Your task to perform on an android device: check google app version Image 0: 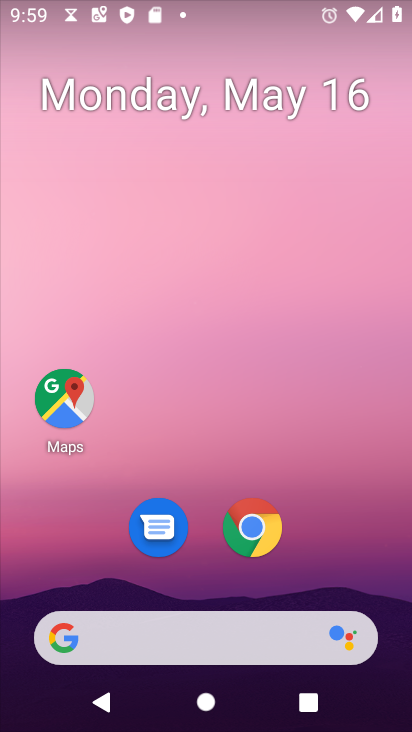
Step 0: drag from (378, 607) to (320, 34)
Your task to perform on an android device: check google app version Image 1: 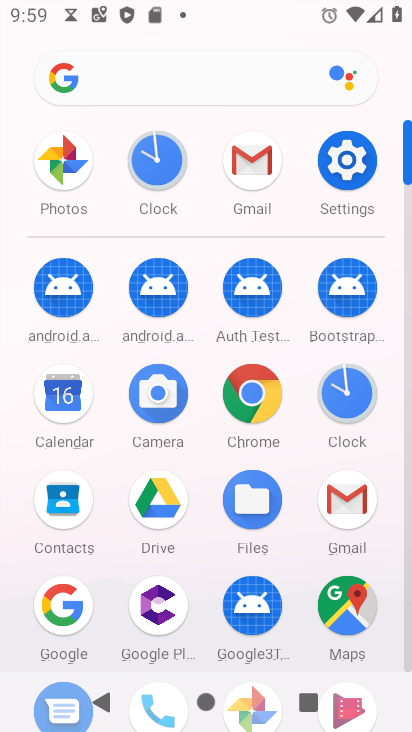
Step 1: click (58, 615)
Your task to perform on an android device: check google app version Image 2: 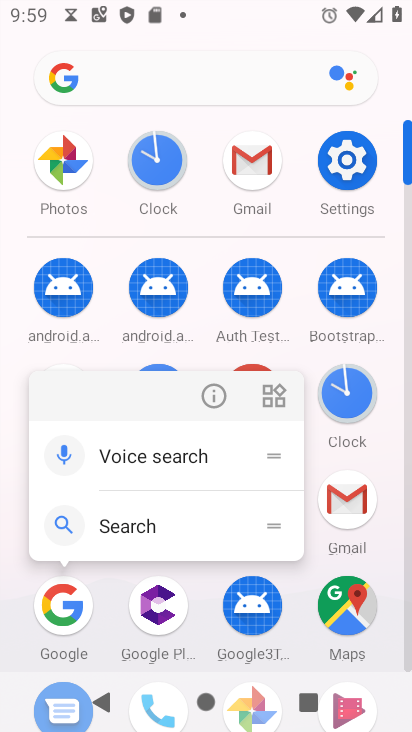
Step 2: click (212, 400)
Your task to perform on an android device: check google app version Image 3: 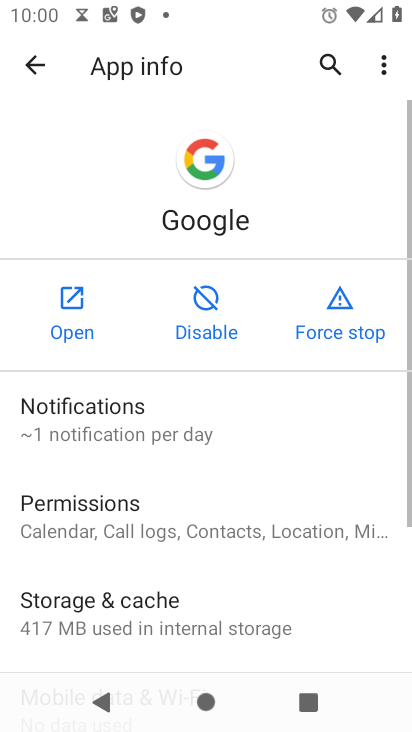
Step 3: drag from (210, 593) to (213, 95)
Your task to perform on an android device: check google app version Image 4: 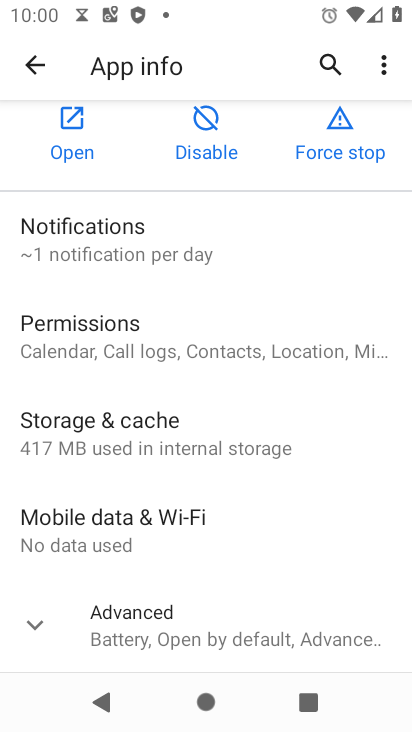
Step 4: click (30, 632)
Your task to perform on an android device: check google app version Image 5: 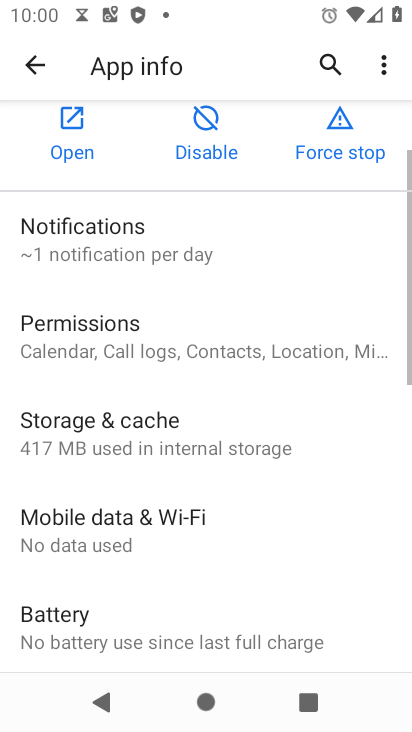
Step 5: task complete